Your task to perform on an android device: Open Google Chrome Image 0: 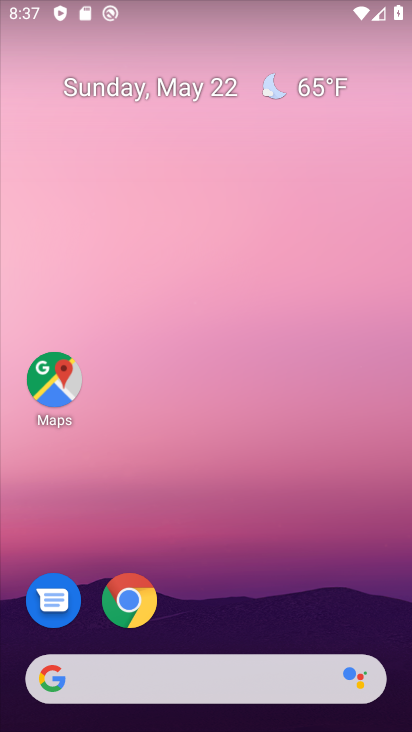
Step 0: click (127, 605)
Your task to perform on an android device: Open Google Chrome Image 1: 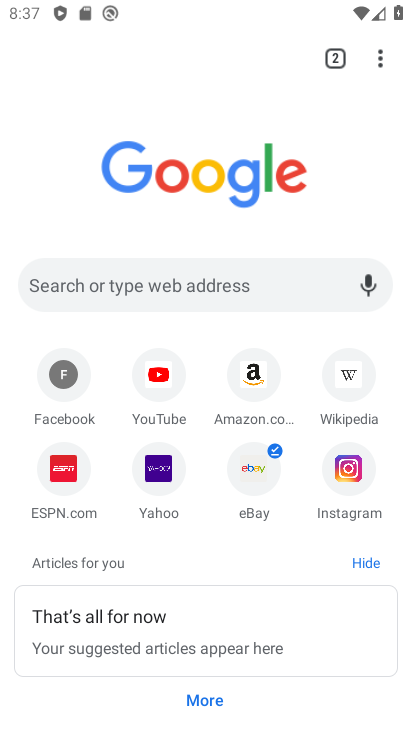
Step 1: task complete